Your task to perform on an android device: change the upload size in google photos Image 0: 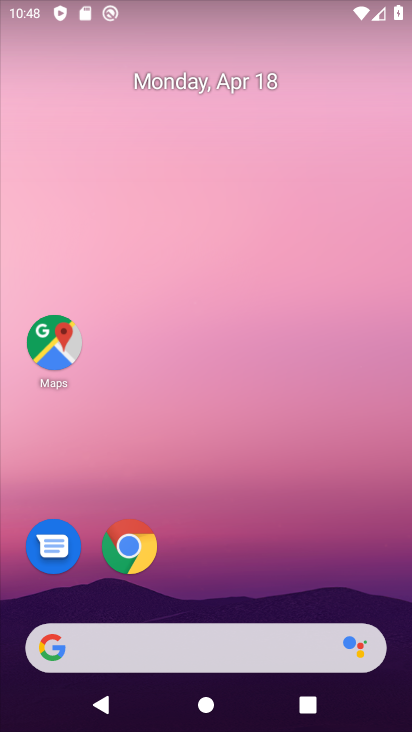
Step 0: drag from (372, 580) to (362, 73)
Your task to perform on an android device: change the upload size in google photos Image 1: 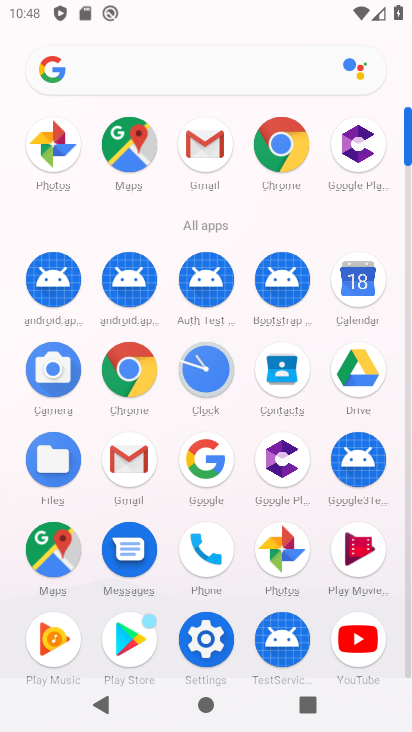
Step 1: drag from (392, 503) to (387, 195)
Your task to perform on an android device: change the upload size in google photos Image 2: 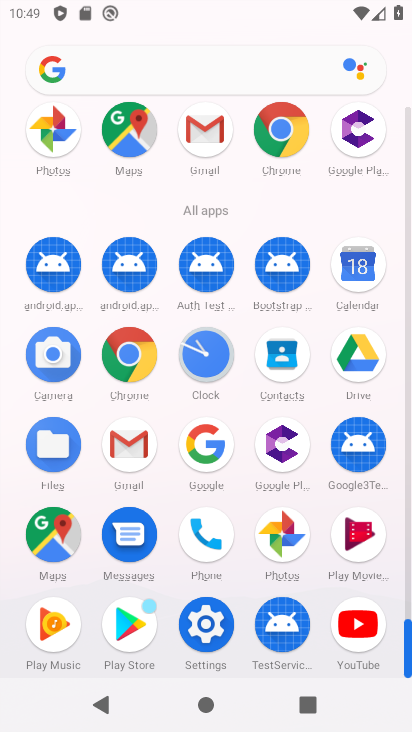
Step 2: click (285, 546)
Your task to perform on an android device: change the upload size in google photos Image 3: 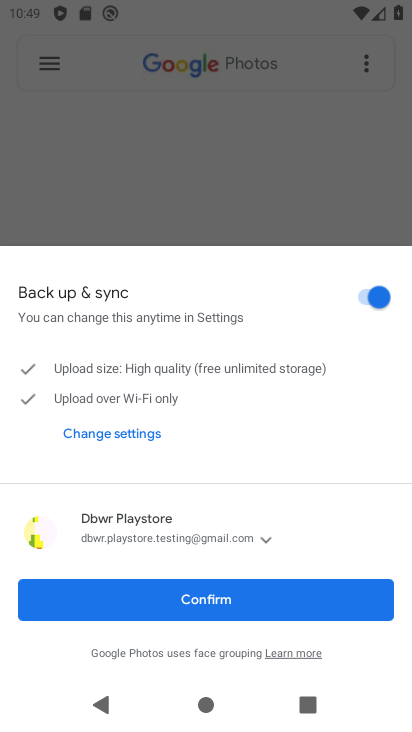
Step 3: click (249, 593)
Your task to perform on an android device: change the upload size in google photos Image 4: 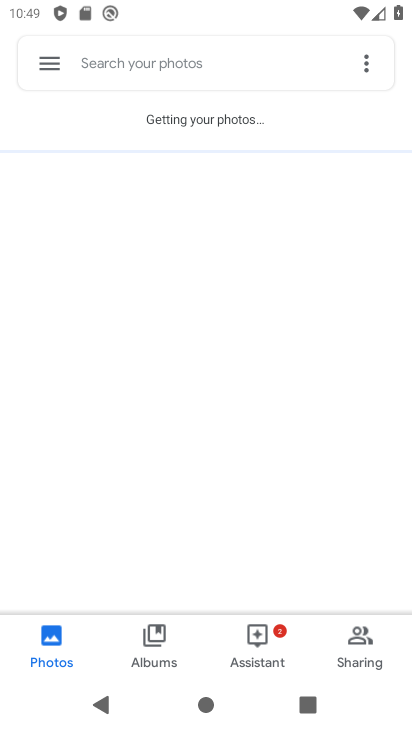
Step 4: click (41, 55)
Your task to perform on an android device: change the upload size in google photos Image 5: 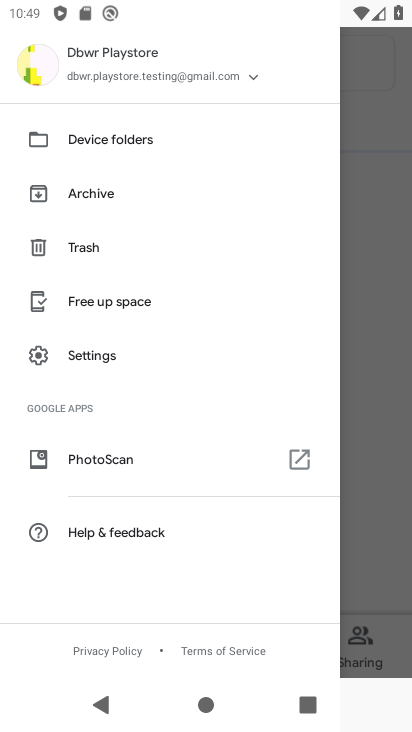
Step 5: click (105, 359)
Your task to perform on an android device: change the upload size in google photos Image 6: 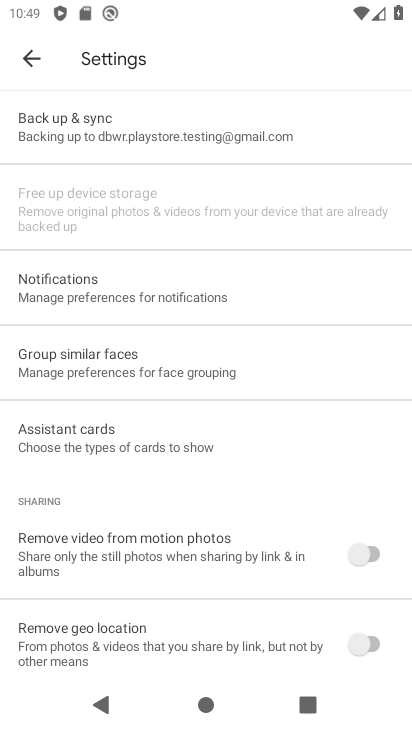
Step 6: click (166, 125)
Your task to perform on an android device: change the upload size in google photos Image 7: 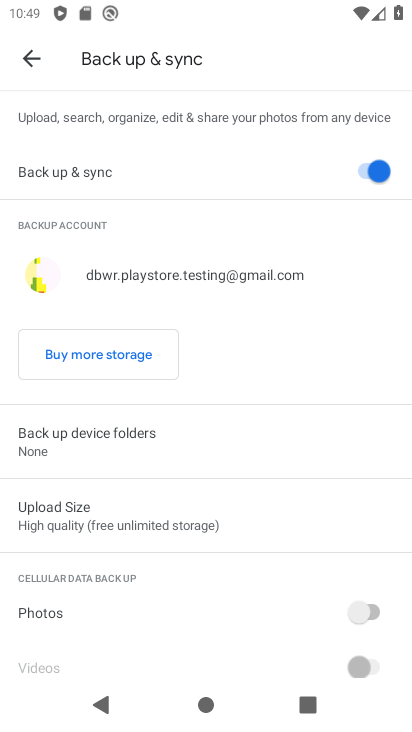
Step 7: click (143, 529)
Your task to perform on an android device: change the upload size in google photos Image 8: 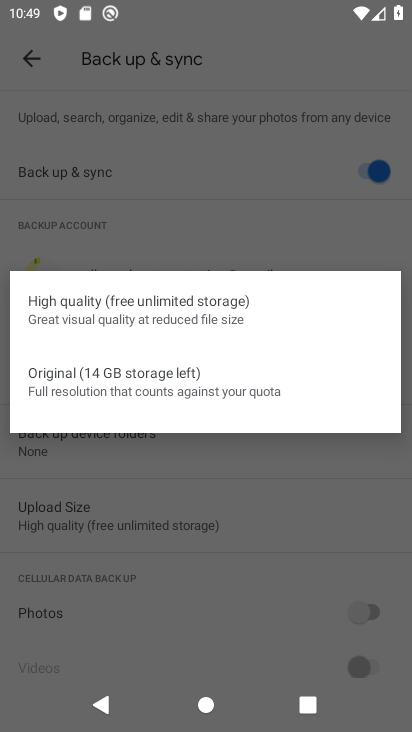
Step 8: click (167, 385)
Your task to perform on an android device: change the upload size in google photos Image 9: 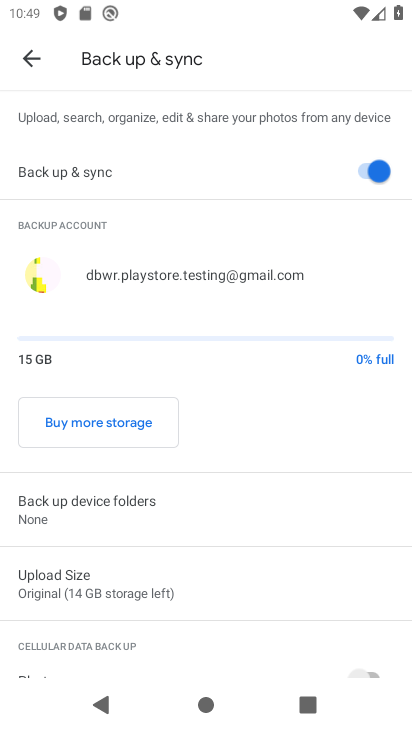
Step 9: task complete